Your task to perform on an android device: turn off wifi Image 0: 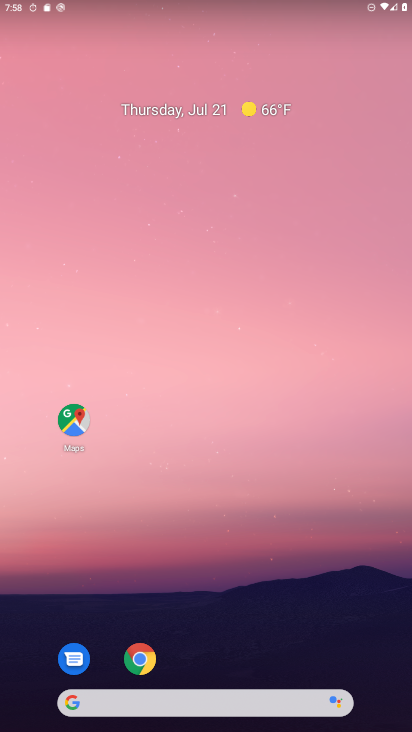
Step 0: drag from (195, 655) to (283, 53)
Your task to perform on an android device: turn off wifi Image 1: 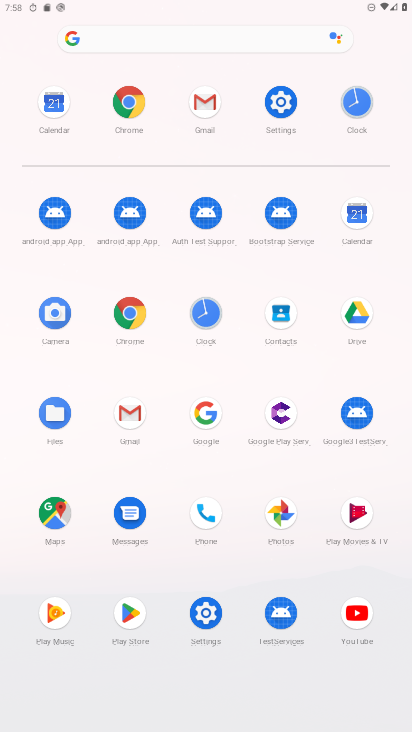
Step 1: click (274, 94)
Your task to perform on an android device: turn off wifi Image 2: 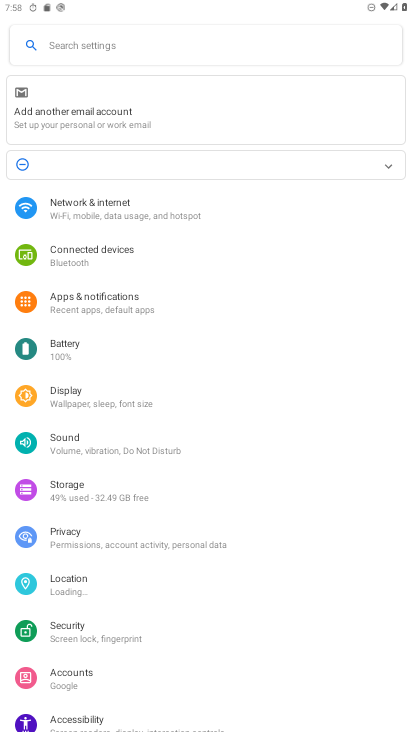
Step 2: click (117, 204)
Your task to perform on an android device: turn off wifi Image 3: 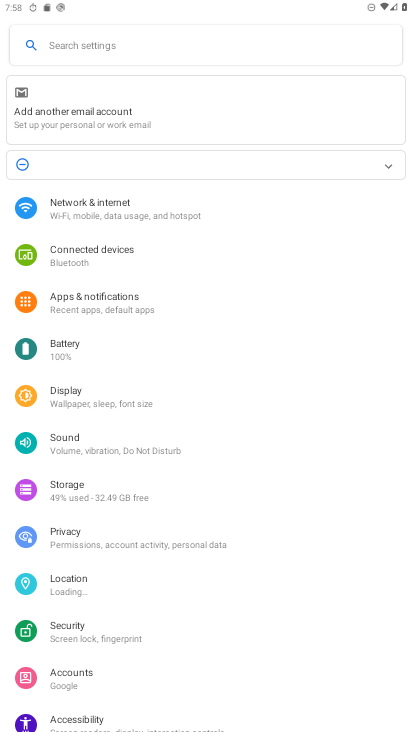
Step 3: click (117, 204)
Your task to perform on an android device: turn off wifi Image 4: 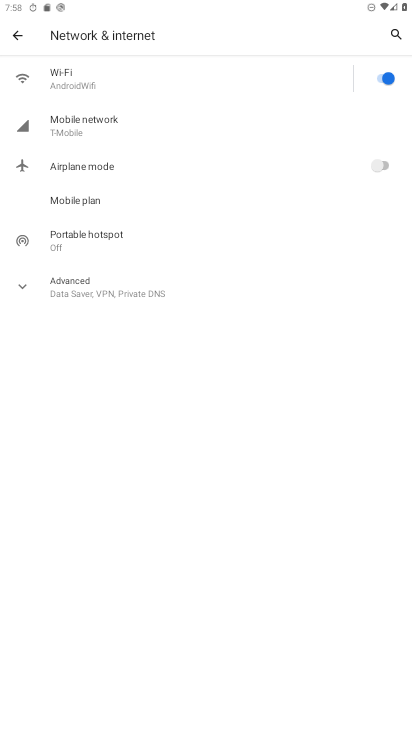
Step 4: click (113, 74)
Your task to perform on an android device: turn off wifi Image 5: 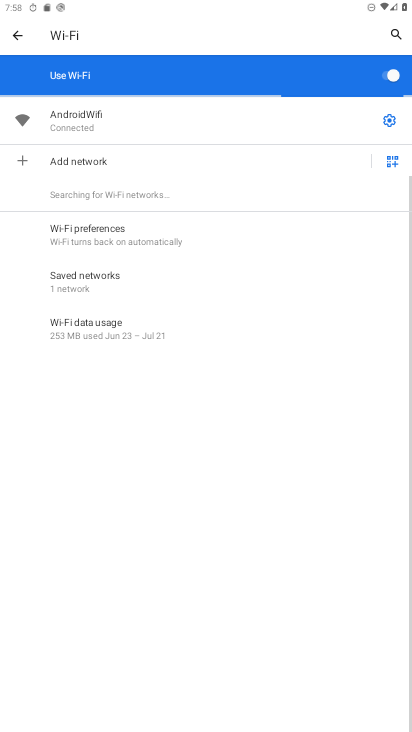
Step 5: click (393, 74)
Your task to perform on an android device: turn off wifi Image 6: 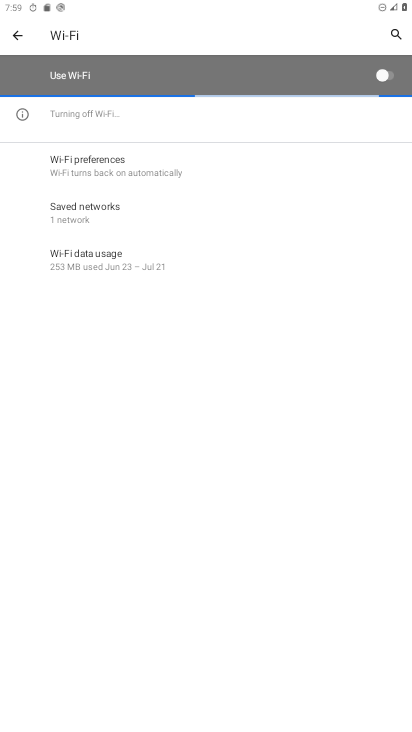
Step 6: task complete